Your task to perform on an android device: Open privacy settings Image 0: 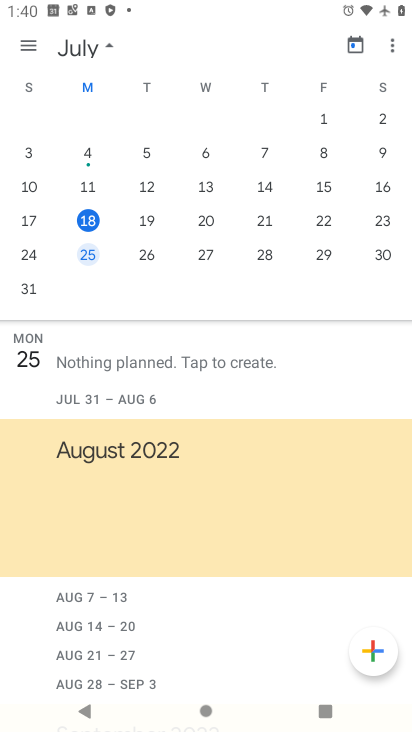
Step 0: press home button
Your task to perform on an android device: Open privacy settings Image 1: 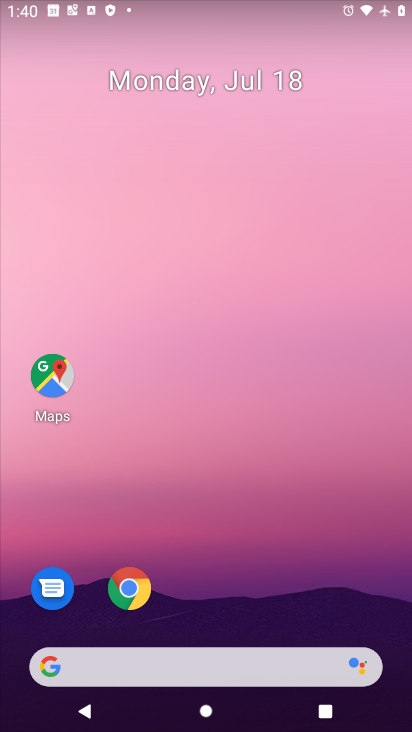
Step 1: drag from (285, 457) to (312, 237)
Your task to perform on an android device: Open privacy settings Image 2: 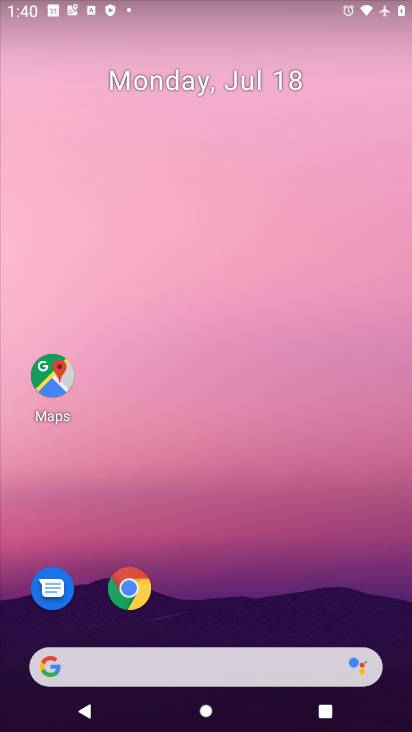
Step 2: drag from (142, 685) to (180, 418)
Your task to perform on an android device: Open privacy settings Image 3: 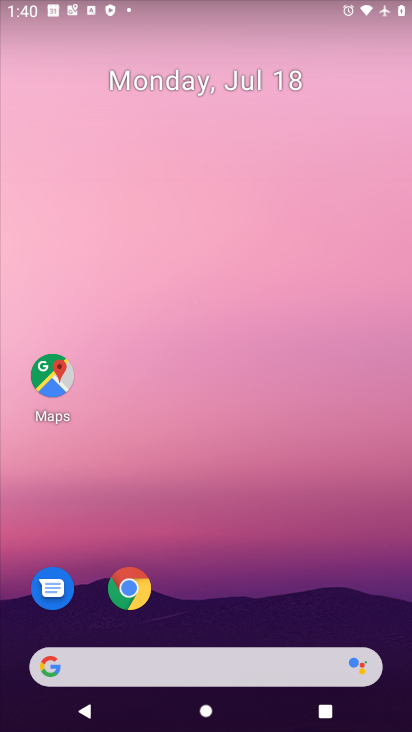
Step 3: drag from (230, 613) to (302, 27)
Your task to perform on an android device: Open privacy settings Image 4: 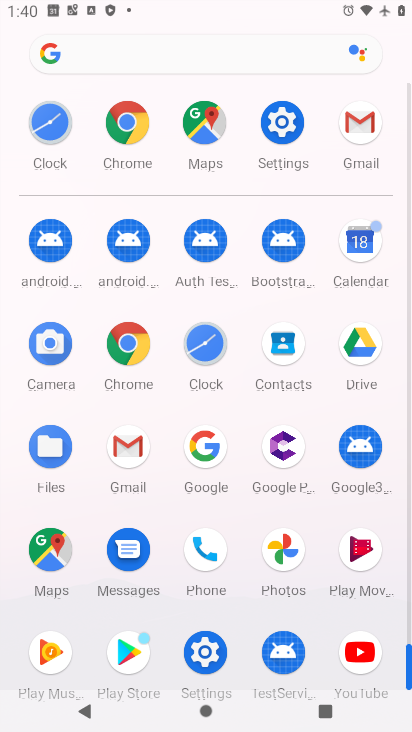
Step 4: click (287, 138)
Your task to perform on an android device: Open privacy settings Image 5: 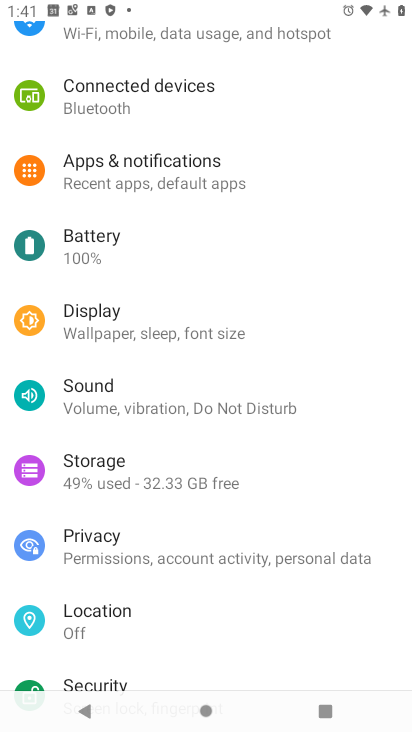
Step 5: click (190, 545)
Your task to perform on an android device: Open privacy settings Image 6: 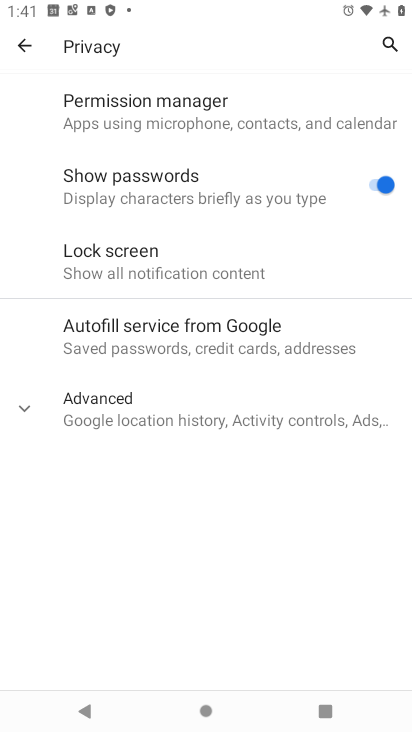
Step 6: task complete